Your task to perform on an android device: Is it going to rain today? Image 0: 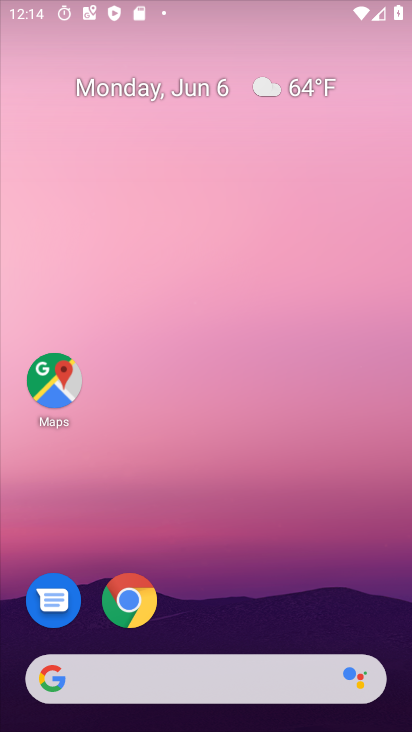
Step 0: drag from (262, 680) to (230, 139)
Your task to perform on an android device: Is it going to rain today? Image 1: 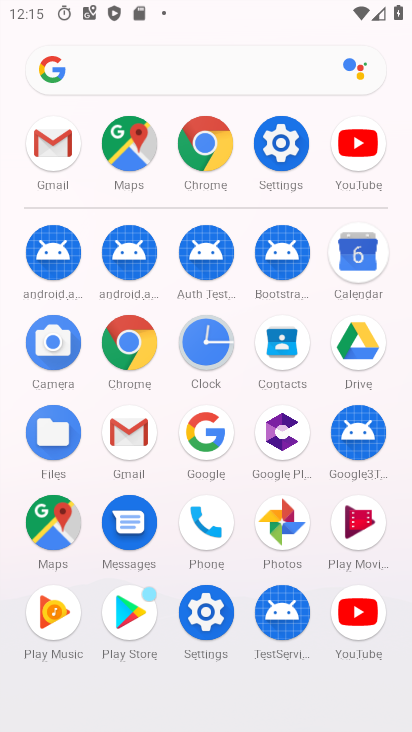
Step 1: press back button
Your task to perform on an android device: Is it going to rain today? Image 2: 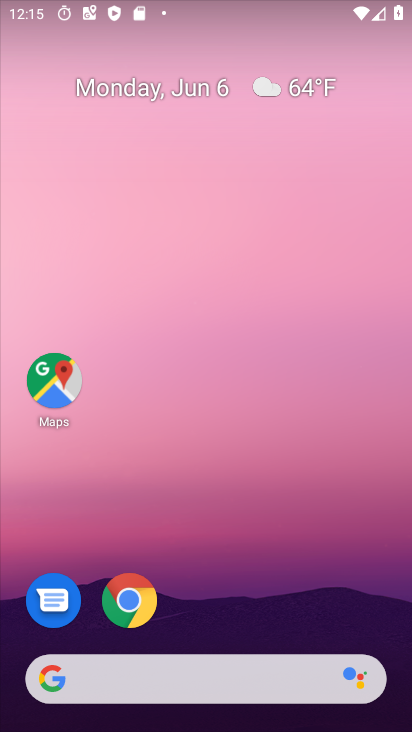
Step 2: drag from (298, 453) to (371, 517)
Your task to perform on an android device: Is it going to rain today? Image 3: 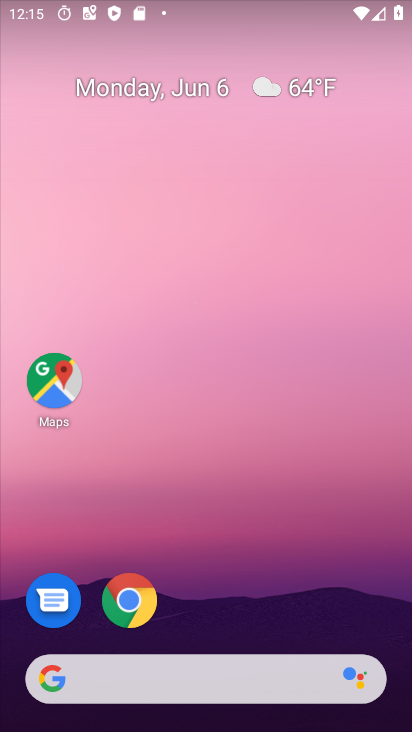
Step 3: drag from (5, 199) to (371, 306)
Your task to perform on an android device: Is it going to rain today? Image 4: 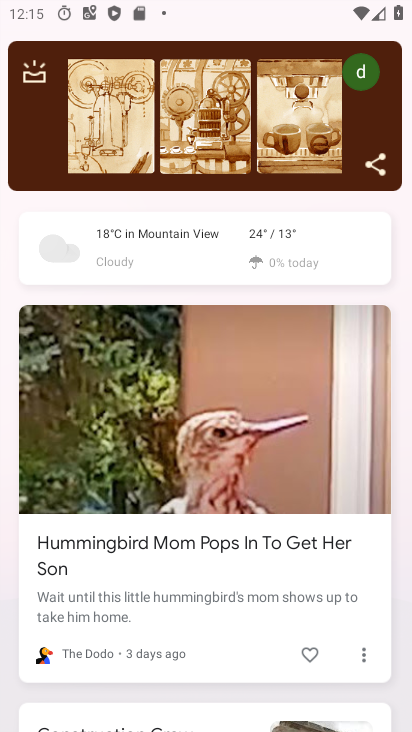
Step 4: drag from (105, 239) to (403, 481)
Your task to perform on an android device: Is it going to rain today? Image 5: 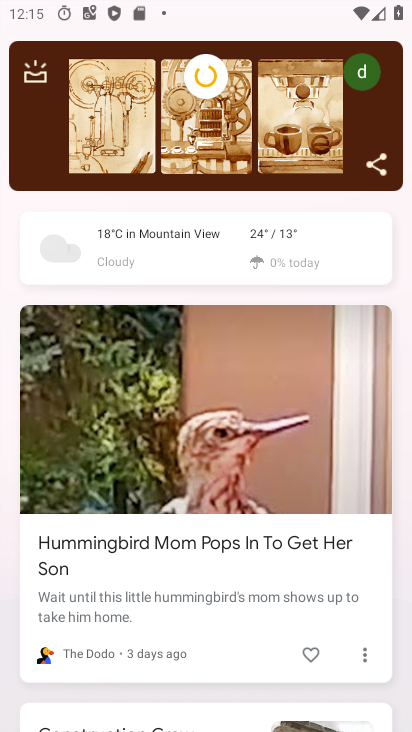
Step 5: click (205, 248)
Your task to perform on an android device: Is it going to rain today? Image 6: 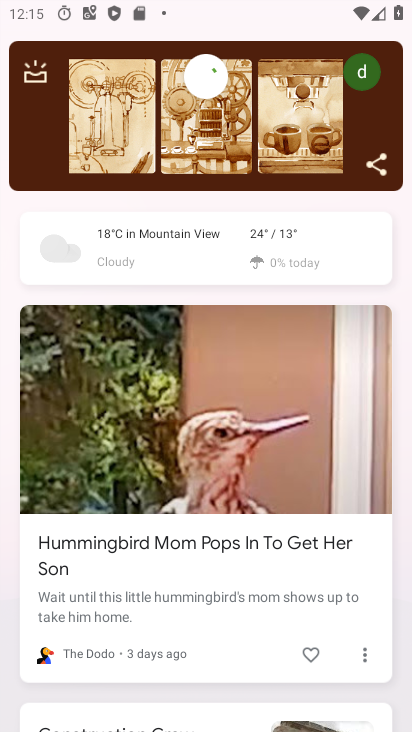
Step 6: click (205, 248)
Your task to perform on an android device: Is it going to rain today? Image 7: 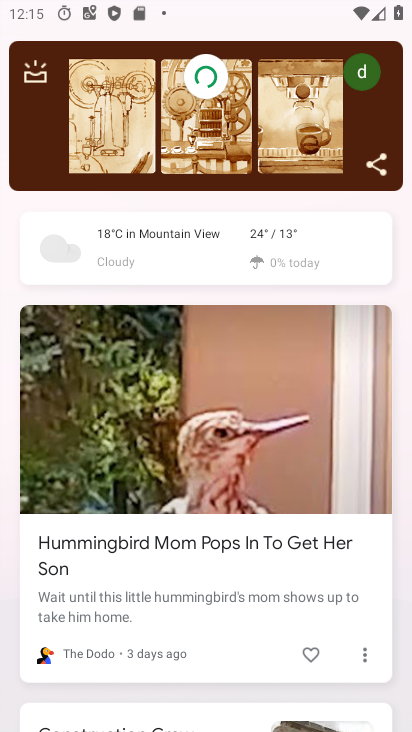
Step 7: click (205, 248)
Your task to perform on an android device: Is it going to rain today? Image 8: 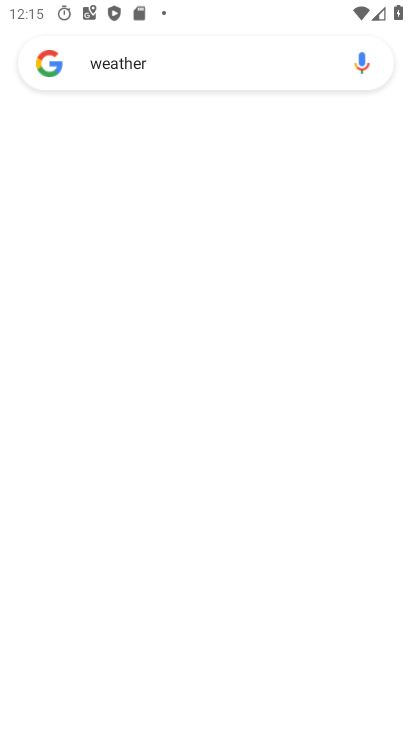
Step 8: click (205, 245)
Your task to perform on an android device: Is it going to rain today? Image 9: 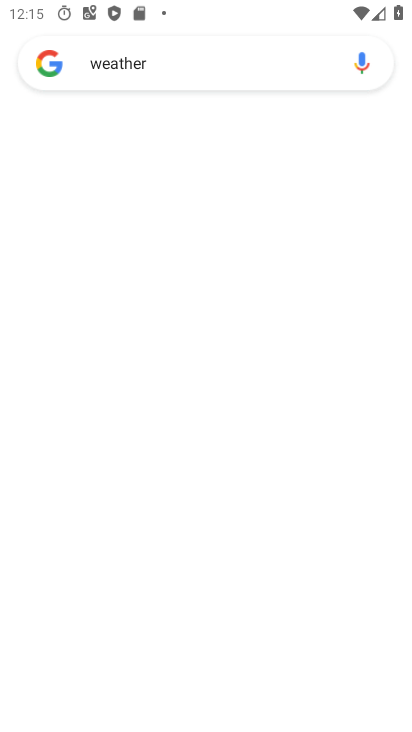
Step 9: click (203, 242)
Your task to perform on an android device: Is it going to rain today? Image 10: 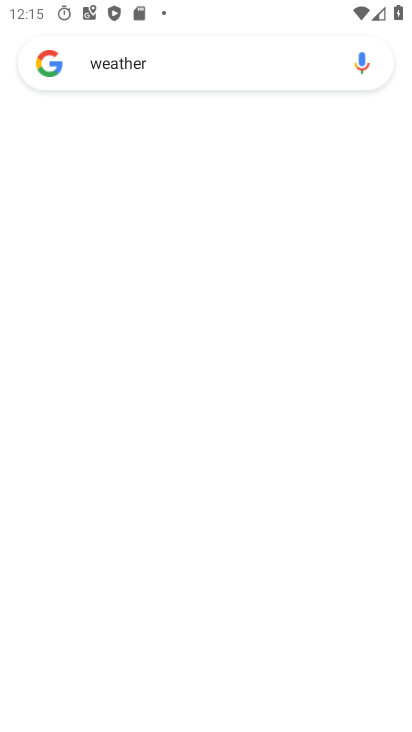
Step 10: click (202, 241)
Your task to perform on an android device: Is it going to rain today? Image 11: 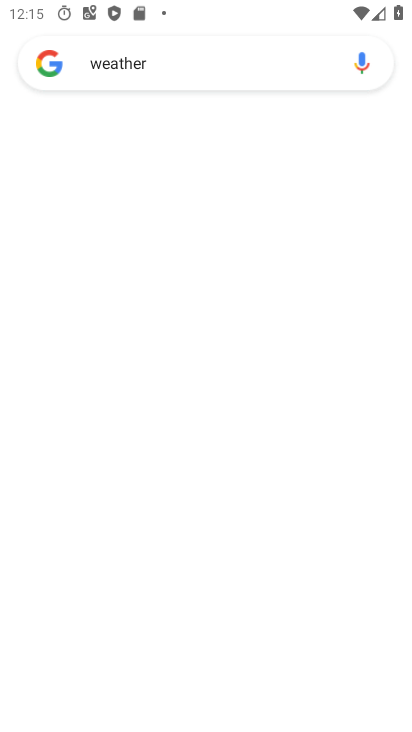
Step 11: click (202, 241)
Your task to perform on an android device: Is it going to rain today? Image 12: 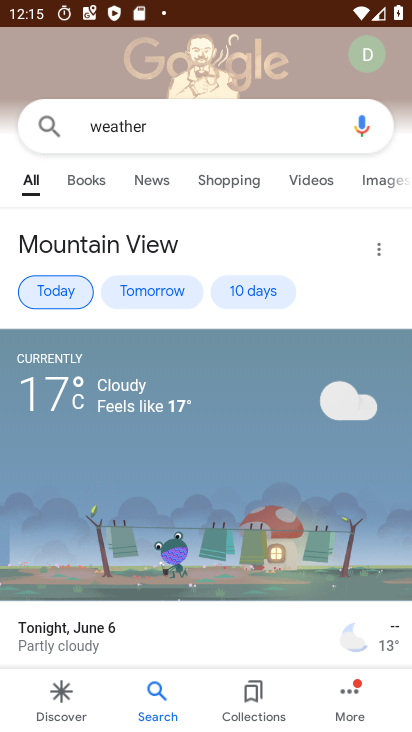
Step 12: task complete